Your task to perform on an android device: Go to battery settings Image 0: 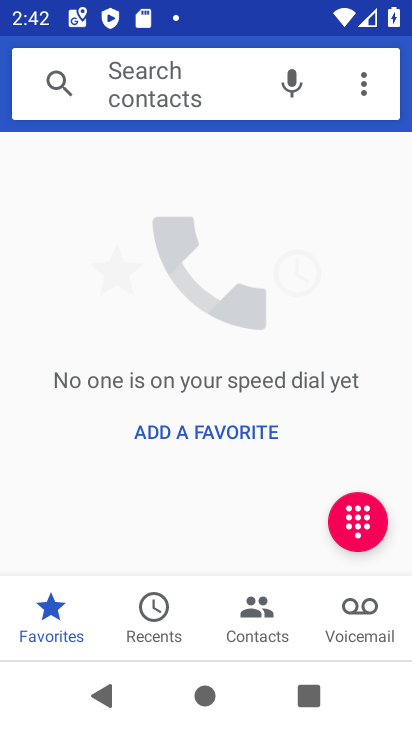
Step 0: press home button
Your task to perform on an android device: Go to battery settings Image 1: 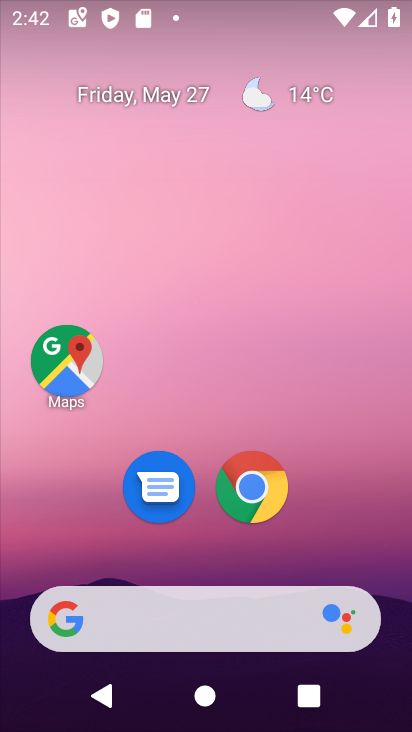
Step 1: drag from (370, 483) to (348, 285)
Your task to perform on an android device: Go to battery settings Image 2: 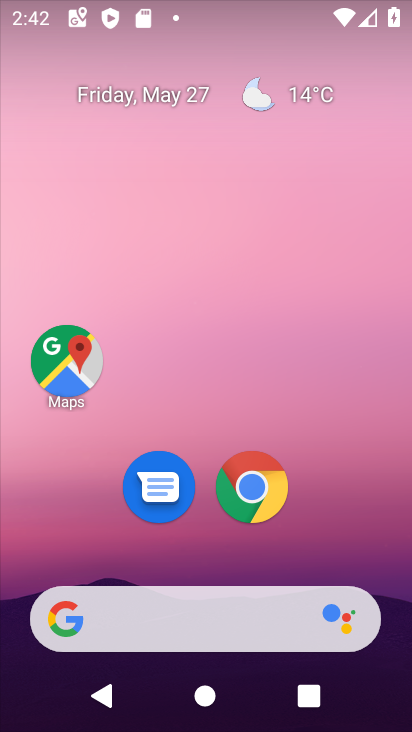
Step 2: drag from (361, 554) to (360, 308)
Your task to perform on an android device: Go to battery settings Image 3: 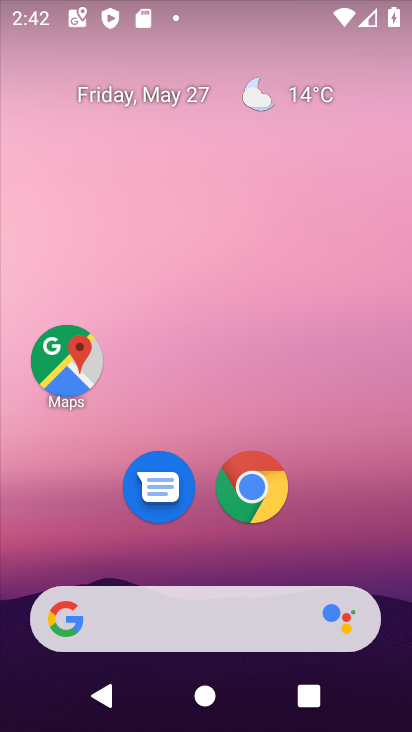
Step 3: drag from (354, 545) to (316, 25)
Your task to perform on an android device: Go to battery settings Image 4: 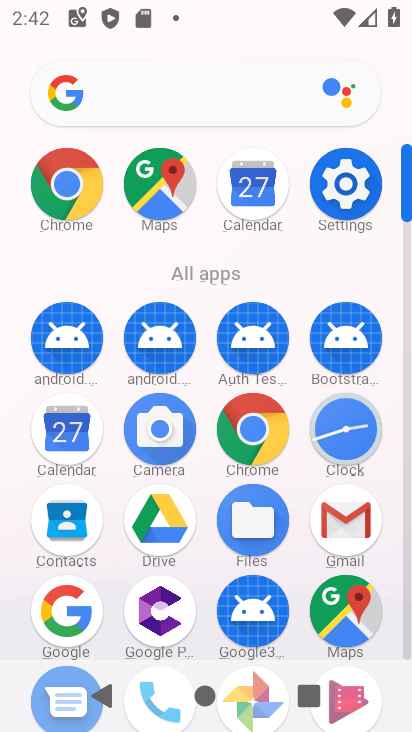
Step 4: click (333, 204)
Your task to perform on an android device: Go to battery settings Image 5: 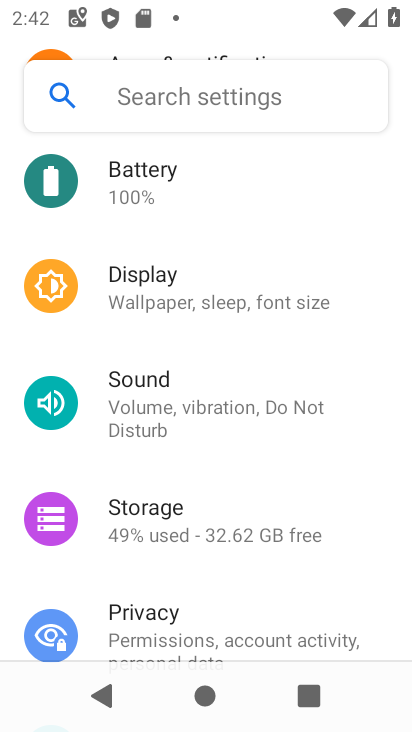
Step 5: click (183, 174)
Your task to perform on an android device: Go to battery settings Image 6: 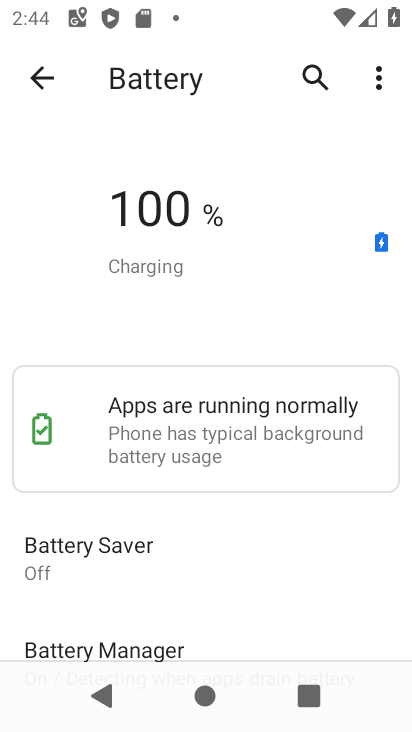
Step 6: task complete